Your task to perform on an android device: What is the recent news? Image 0: 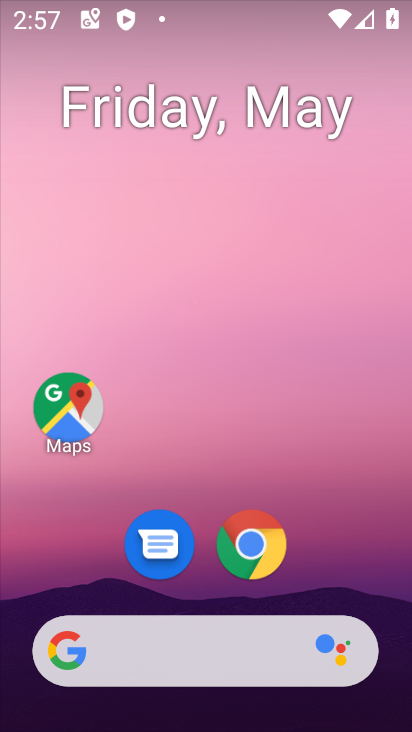
Step 0: drag from (205, 583) to (177, 179)
Your task to perform on an android device: What is the recent news? Image 1: 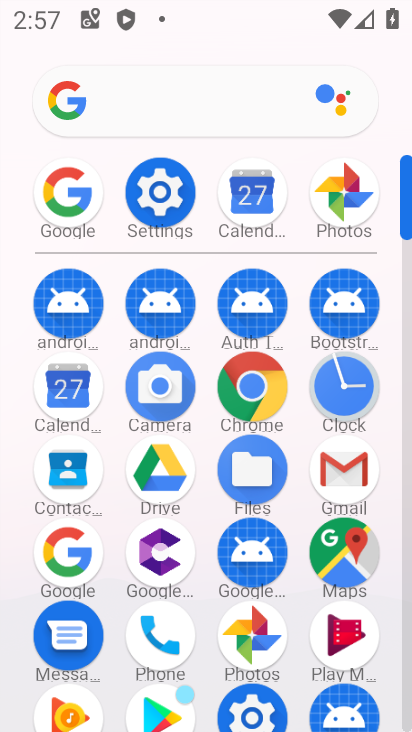
Step 1: click (83, 215)
Your task to perform on an android device: What is the recent news? Image 2: 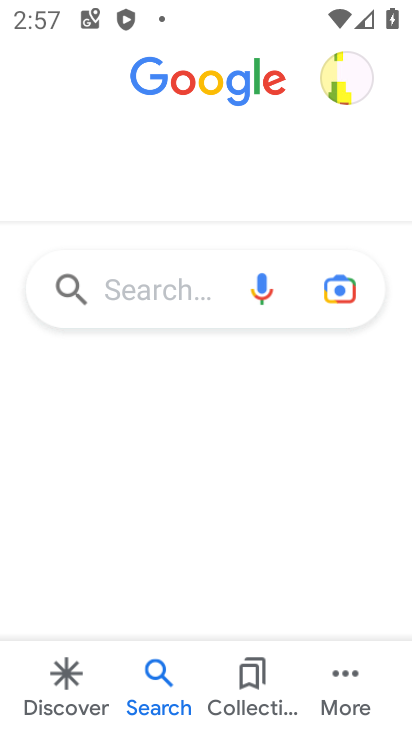
Step 2: click (156, 280)
Your task to perform on an android device: What is the recent news? Image 3: 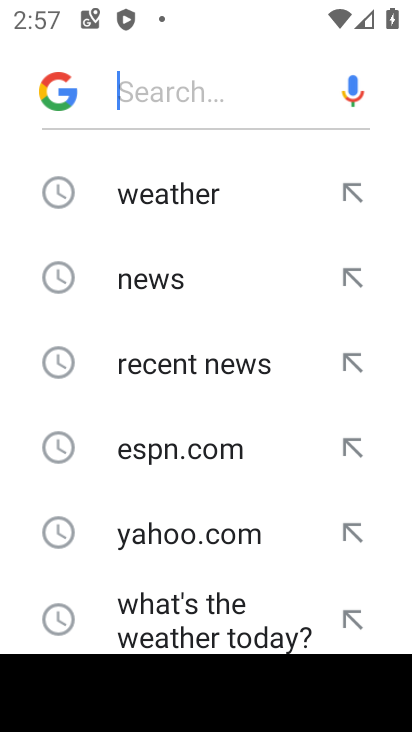
Step 3: click (165, 293)
Your task to perform on an android device: What is the recent news? Image 4: 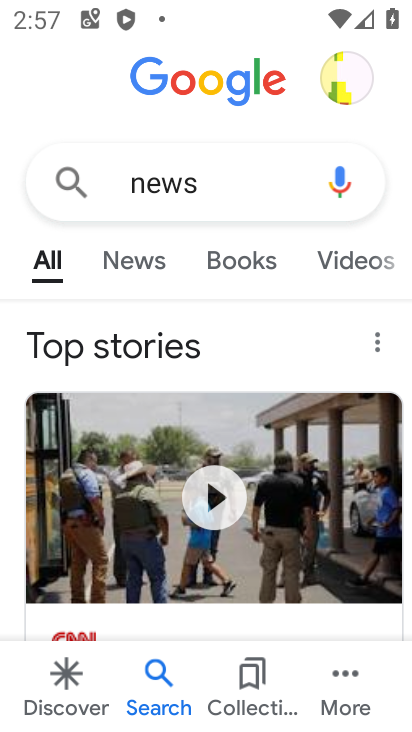
Step 4: click (143, 269)
Your task to perform on an android device: What is the recent news? Image 5: 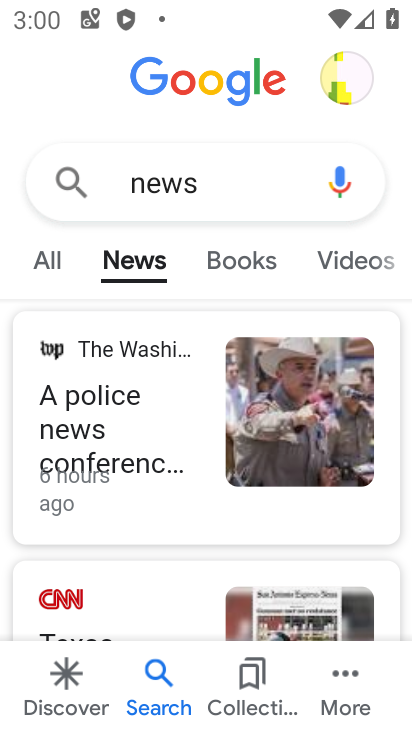
Step 5: task complete